Your task to perform on an android device: Open the Play Movies app and select the watchlist tab. Image 0: 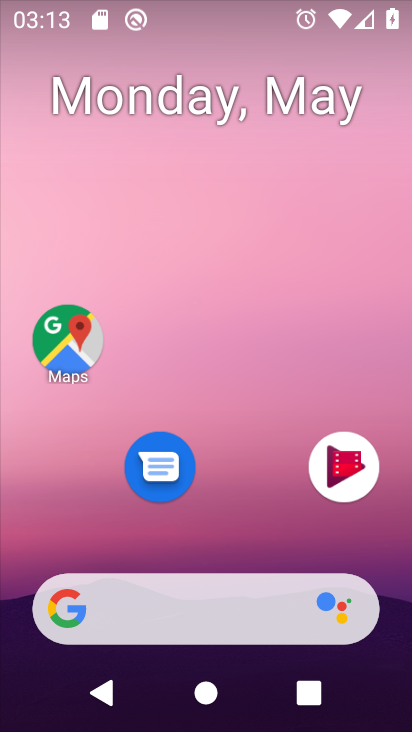
Step 0: drag from (250, 516) to (295, 179)
Your task to perform on an android device: Open the Play Movies app and select the watchlist tab. Image 1: 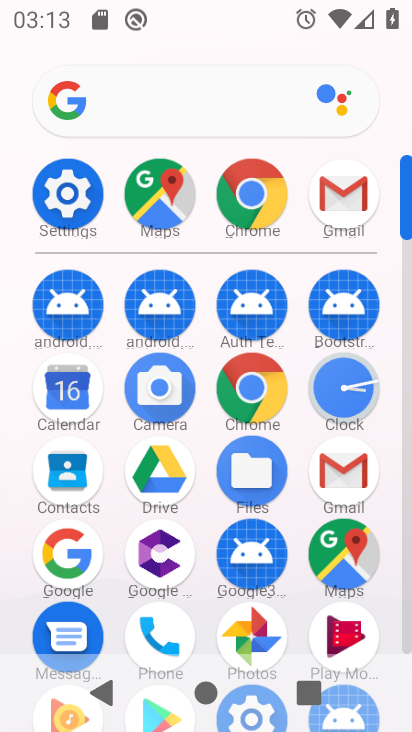
Step 1: click (359, 637)
Your task to perform on an android device: Open the Play Movies app and select the watchlist tab. Image 2: 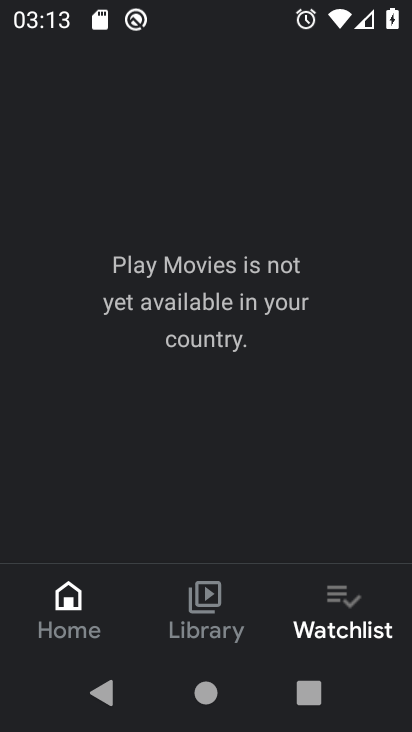
Step 2: click (370, 597)
Your task to perform on an android device: Open the Play Movies app and select the watchlist tab. Image 3: 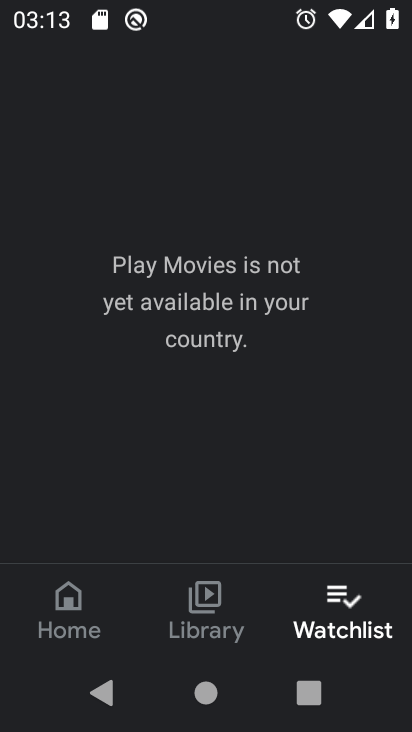
Step 3: task complete